Your task to perform on an android device: Show me popular games on the Play Store Image 0: 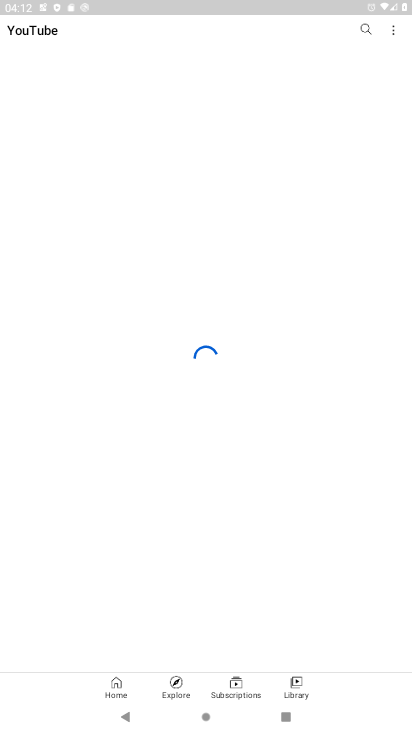
Step 0: press home button
Your task to perform on an android device: Show me popular games on the Play Store Image 1: 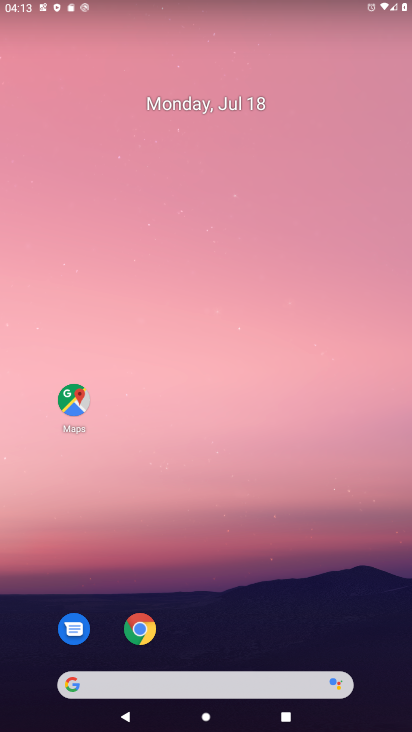
Step 1: drag from (393, 675) to (319, 193)
Your task to perform on an android device: Show me popular games on the Play Store Image 2: 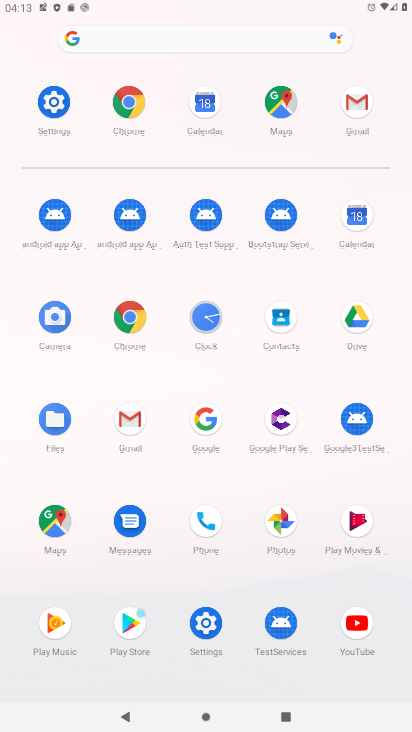
Step 2: click (124, 623)
Your task to perform on an android device: Show me popular games on the Play Store Image 3: 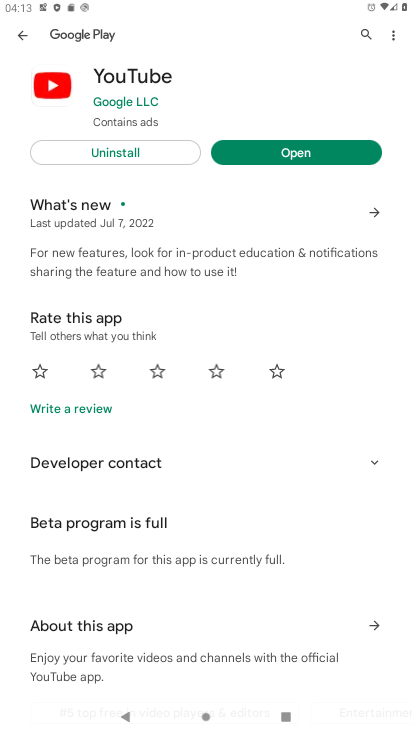
Step 3: click (17, 30)
Your task to perform on an android device: Show me popular games on the Play Store Image 4: 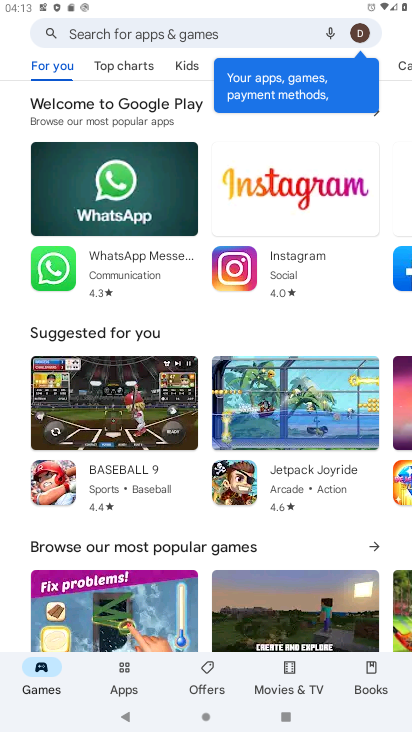
Step 4: click (165, 31)
Your task to perform on an android device: Show me popular games on the Play Store Image 5: 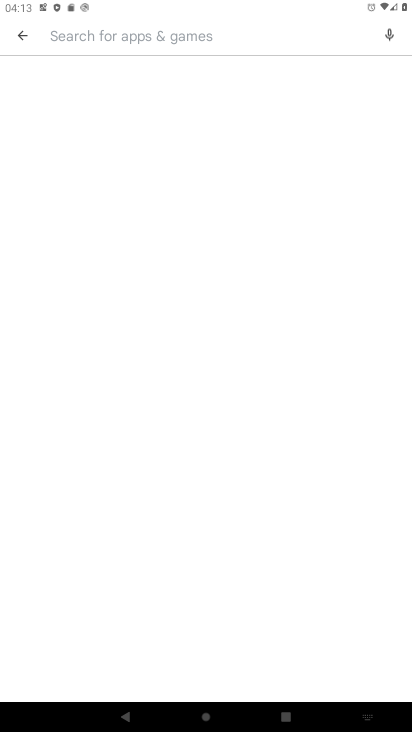
Step 5: type " popular games on the Play Store"
Your task to perform on an android device: Show me popular games on the Play Store Image 6: 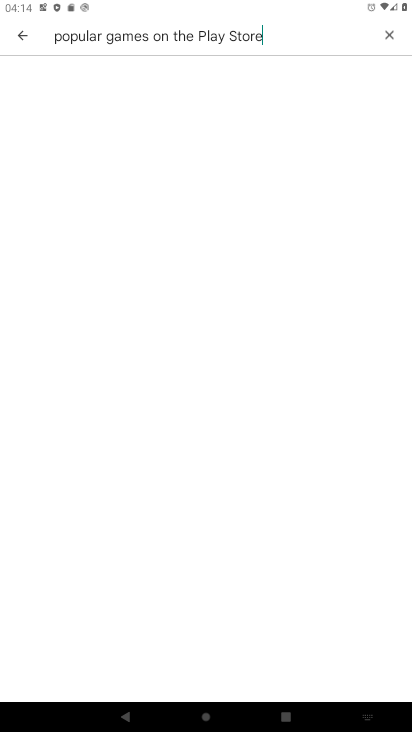
Step 6: task complete